Your task to perform on an android device: Open display settings Image 0: 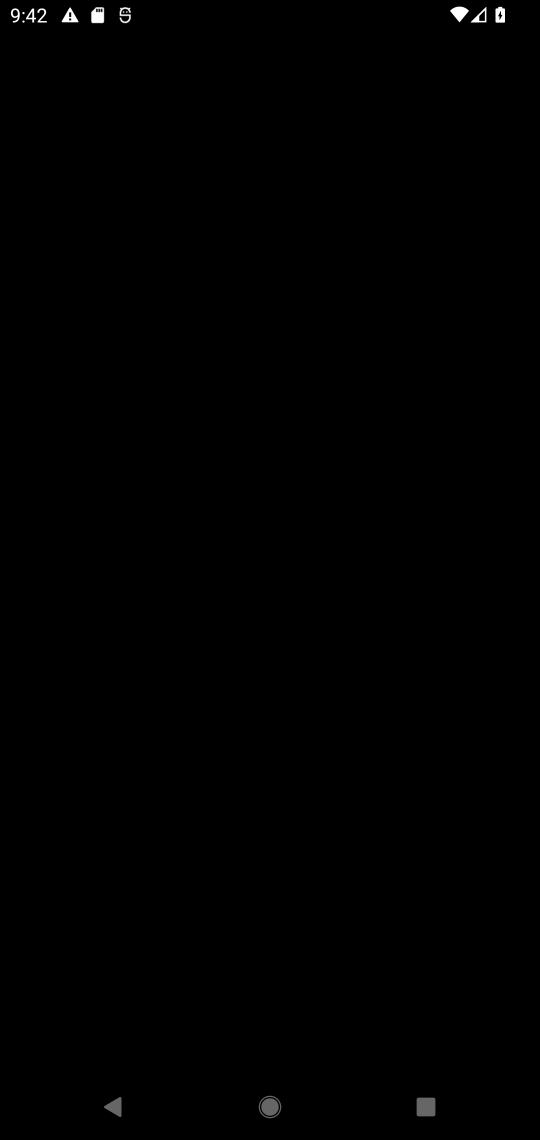
Step 0: press home button
Your task to perform on an android device: Open display settings Image 1: 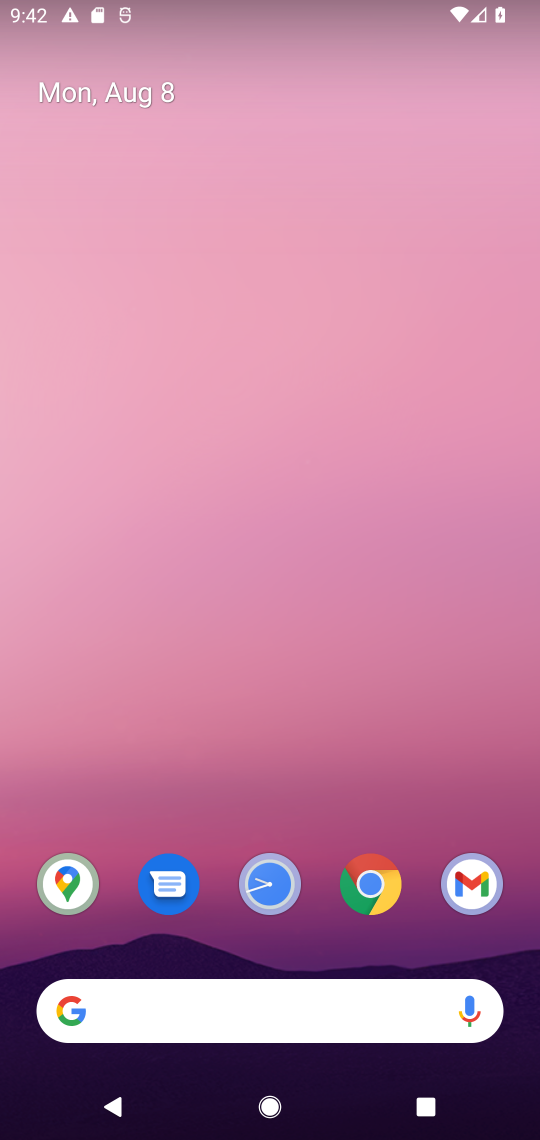
Step 1: drag from (266, 804) to (219, 61)
Your task to perform on an android device: Open display settings Image 2: 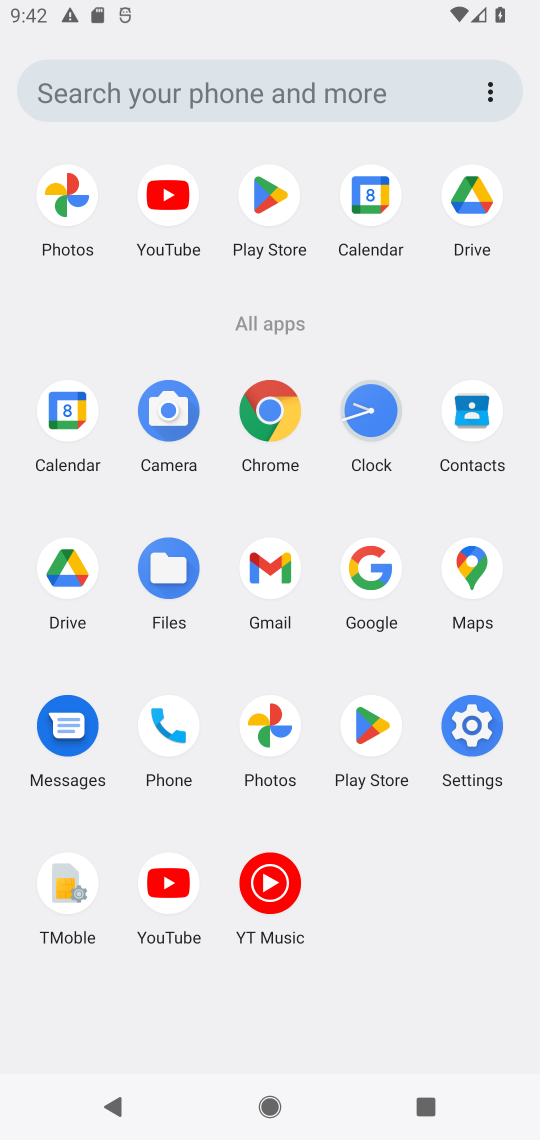
Step 2: click (472, 727)
Your task to perform on an android device: Open display settings Image 3: 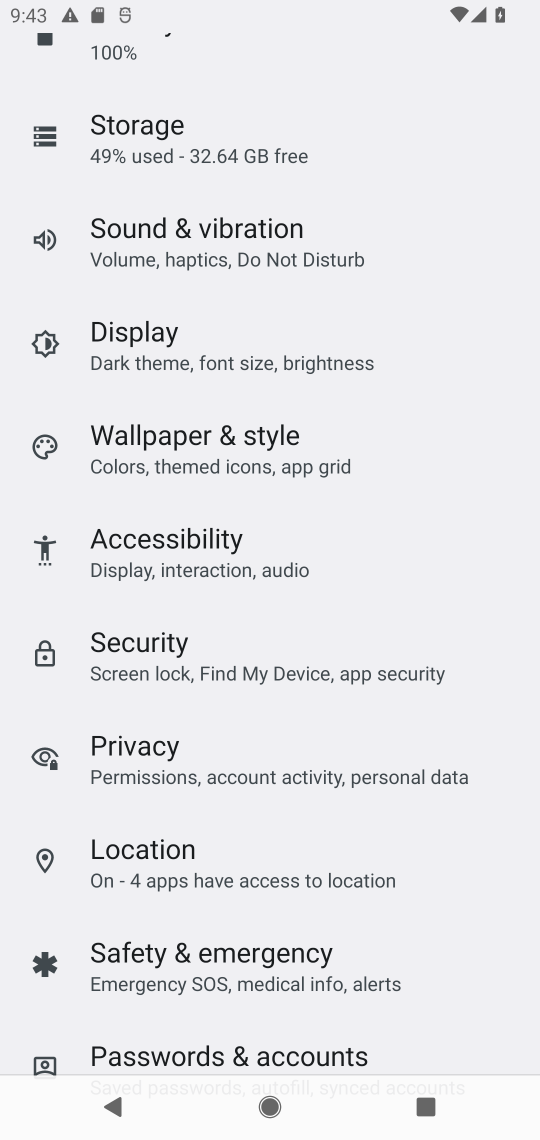
Step 3: drag from (243, 827) to (253, 403)
Your task to perform on an android device: Open display settings Image 4: 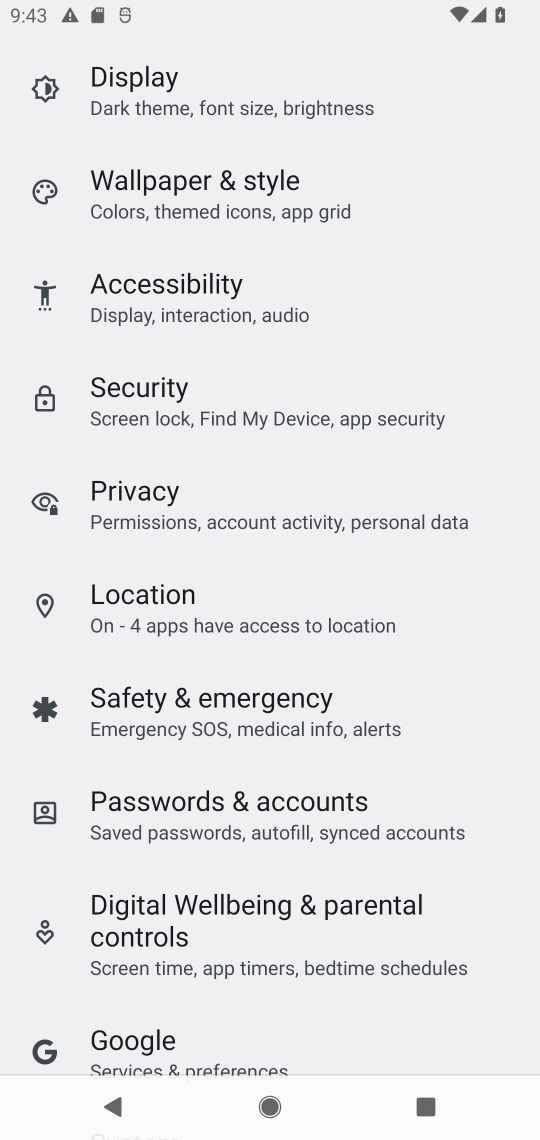
Step 4: click (139, 83)
Your task to perform on an android device: Open display settings Image 5: 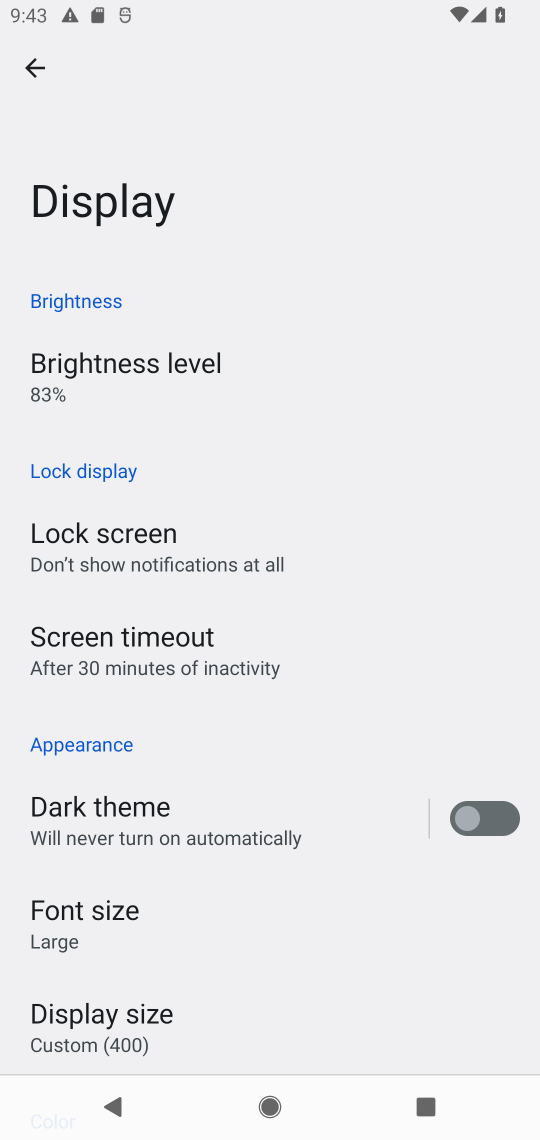
Step 5: task complete